Your task to perform on an android device: empty trash in the gmail app Image 0: 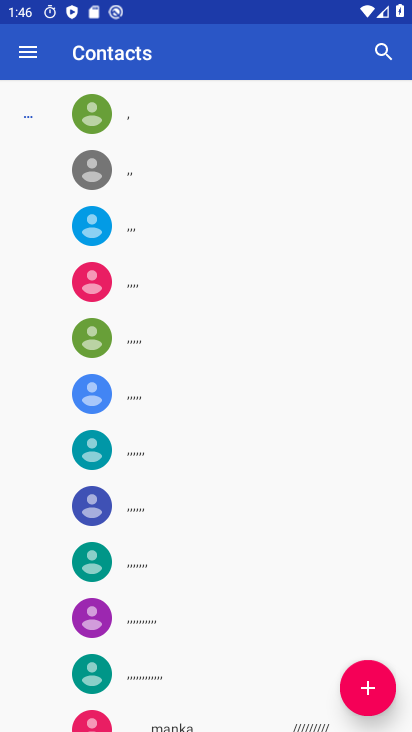
Step 0: click (209, 207)
Your task to perform on an android device: empty trash in the gmail app Image 1: 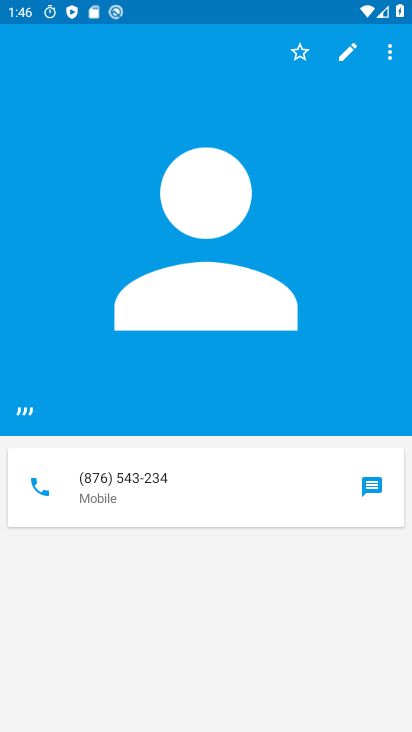
Step 1: press home button
Your task to perform on an android device: empty trash in the gmail app Image 2: 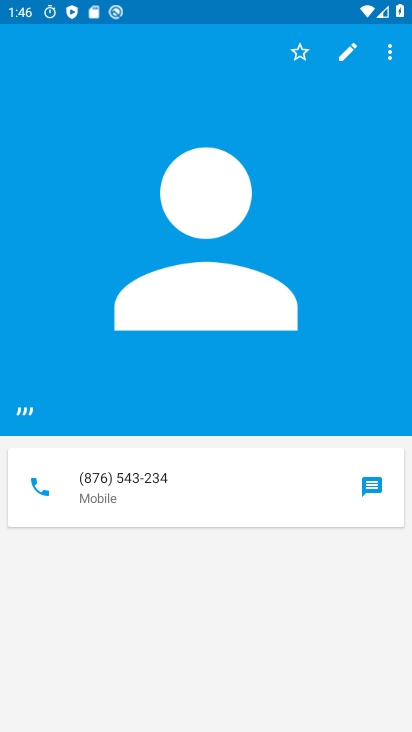
Step 2: drag from (196, 633) to (255, 205)
Your task to perform on an android device: empty trash in the gmail app Image 3: 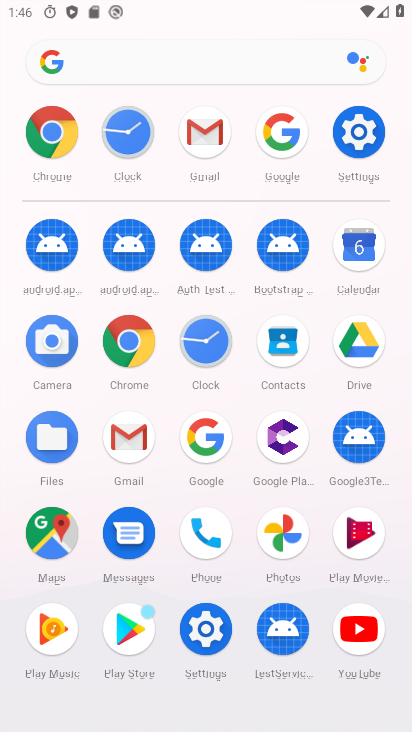
Step 3: click (122, 449)
Your task to perform on an android device: empty trash in the gmail app Image 4: 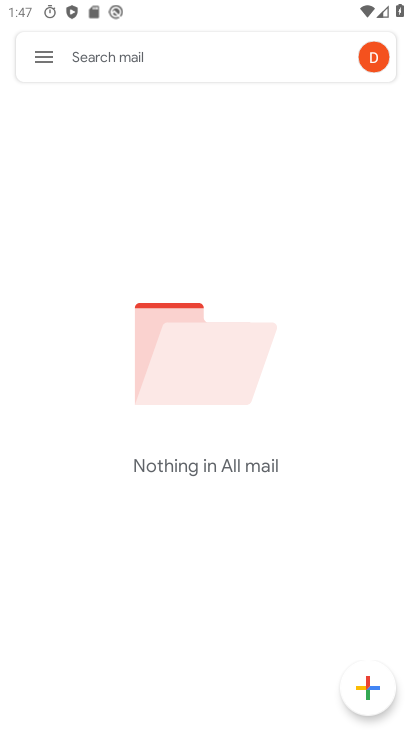
Step 4: click (38, 64)
Your task to perform on an android device: empty trash in the gmail app Image 5: 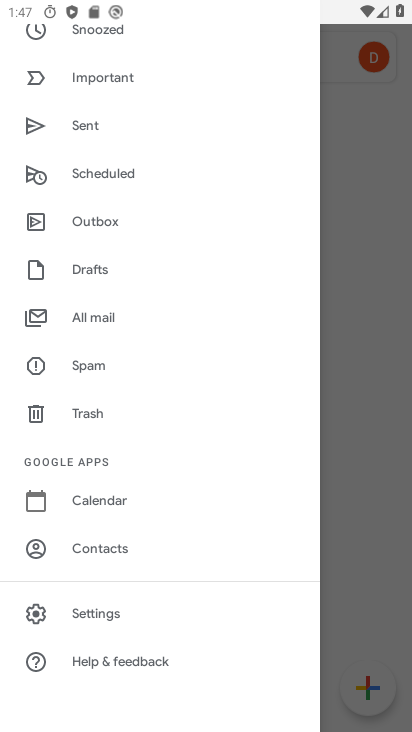
Step 5: click (91, 412)
Your task to perform on an android device: empty trash in the gmail app Image 6: 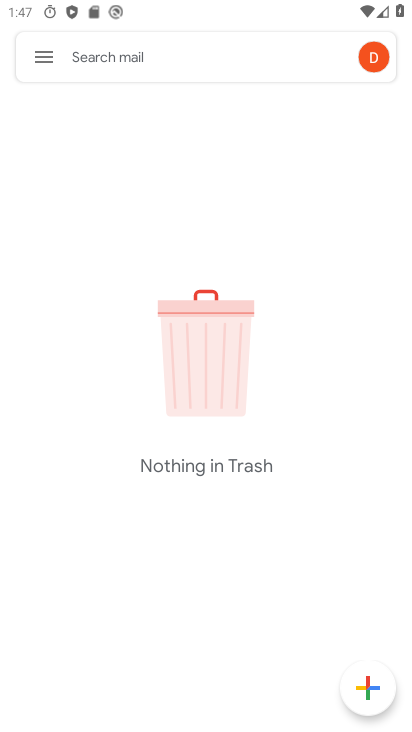
Step 6: task complete